Your task to perform on an android device: see tabs open on other devices in the chrome app Image 0: 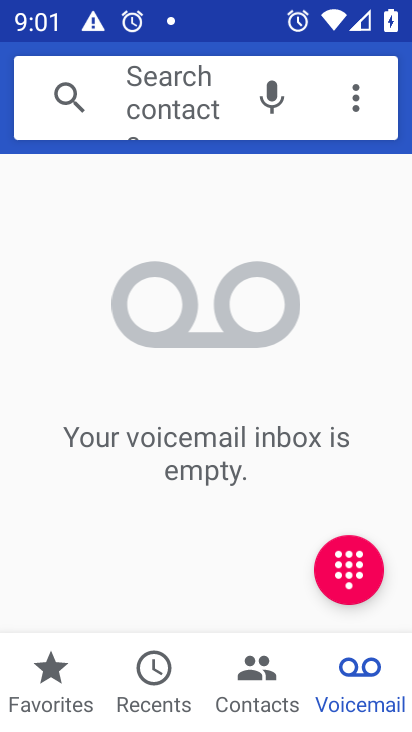
Step 0: press home button
Your task to perform on an android device: see tabs open on other devices in the chrome app Image 1: 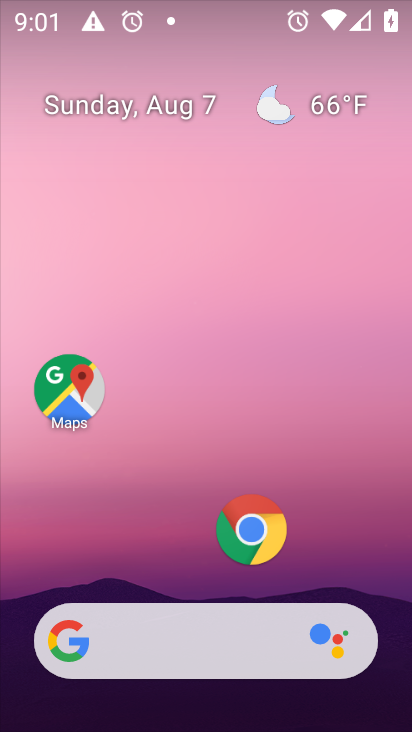
Step 1: click (266, 523)
Your task to perform on an android device: see tabs open on other devices in the chrome app Image 2: 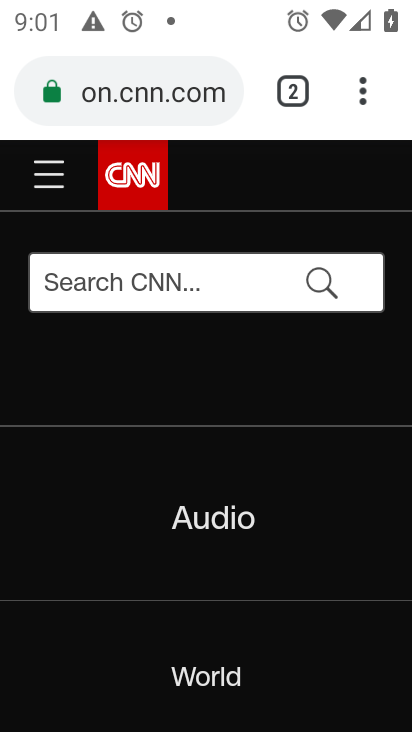
Step 2: click (364, 95)
Your task to perform on an android device: see tabs open on other devices in the chrome app Image 3: 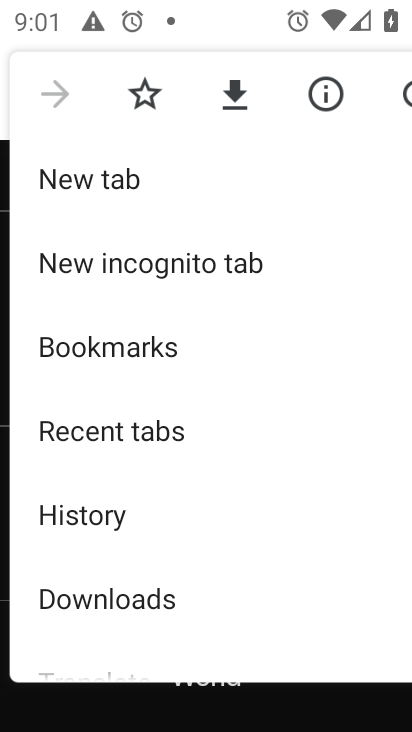
Step 3: click (164, 441)
Your task to perform on an android device: see tabs open on other devices in the chrome app Image 4: 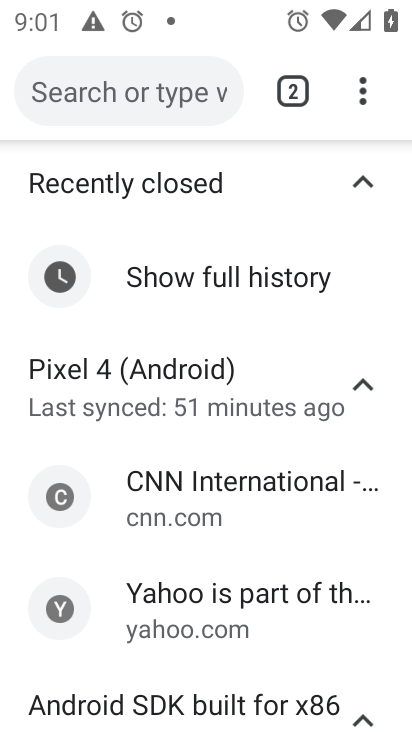
Step 4: task complete